Your task to perform on an android device: open the mobile data screen to see how much data has been used Image 0: 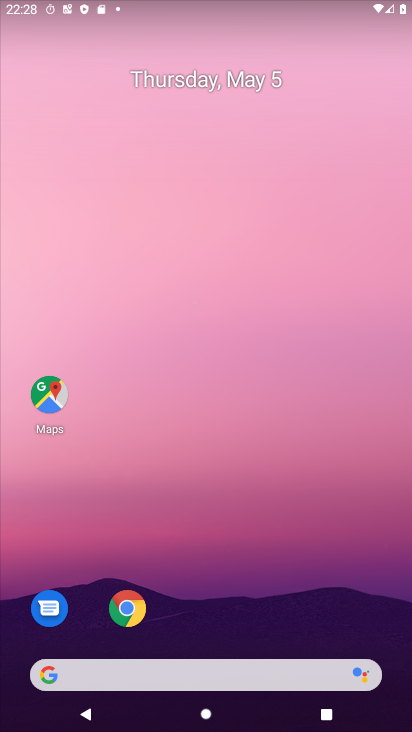
Step 0: drag from (245, 665) to (267, 39)
Your task to perform on an android device: open the mobile data screen to see how much data has been used Image 1: 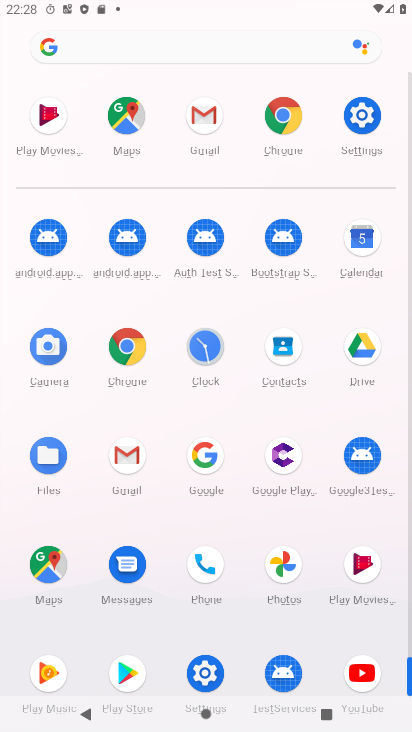
Step 1: click (360, 118)
Your task to perform on an android device: open the mobile data screen to see how much data has been used Image 2: 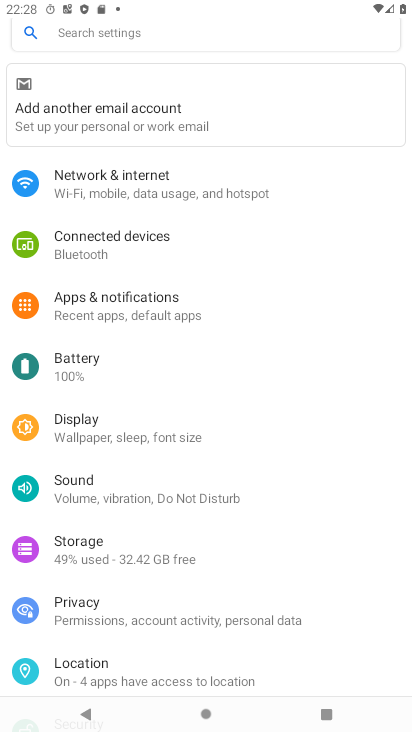
Step 2: click (119, 183)
Your task to perform on an android device: open the mobile data screen to see how much data has been used Image 3: 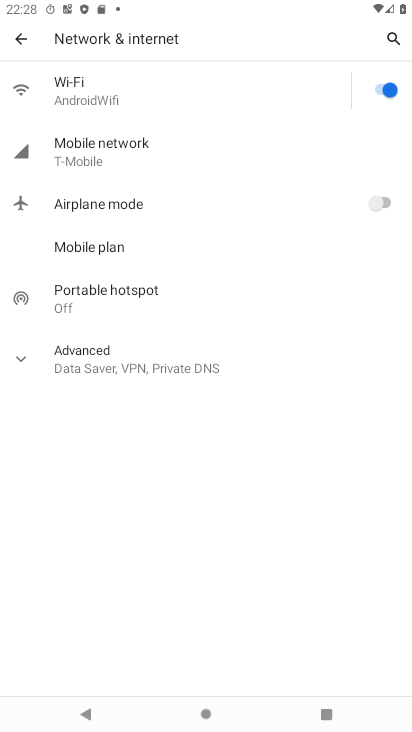
Step 3: click (132, 151)
Your task to perform on an android device: open the mobile data screen to see how much data has been used Image 4: 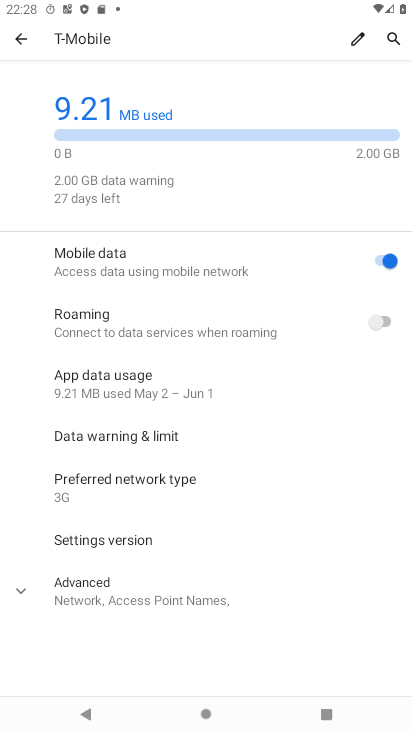
Step 4: click (143, 382)
Your task to perform on an android device: open the mobile data screen to see how much data has been used Image 5: 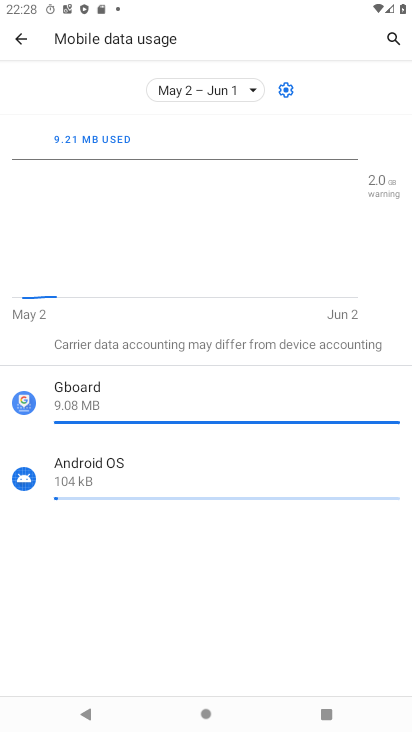
Step 5: task complete